Your task to perform on an android device: Go to Maps Image 0: 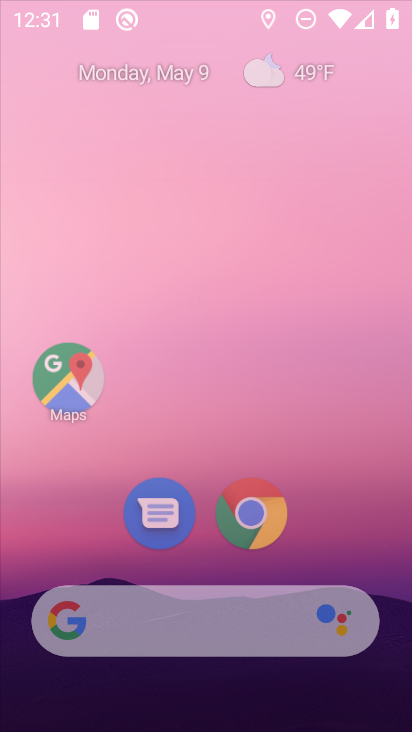
Step 0: click (354, 2)
Your task to perform on an android device: Go to Maps Image 1: 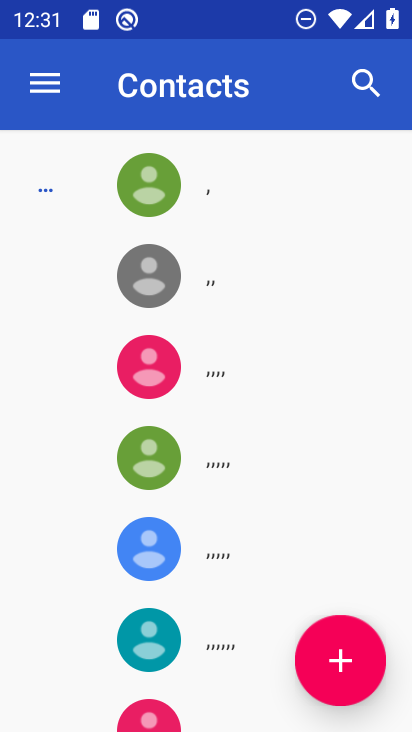
Step 1: press home button
Your task to perform on an android device: Go to Maps Image 2: 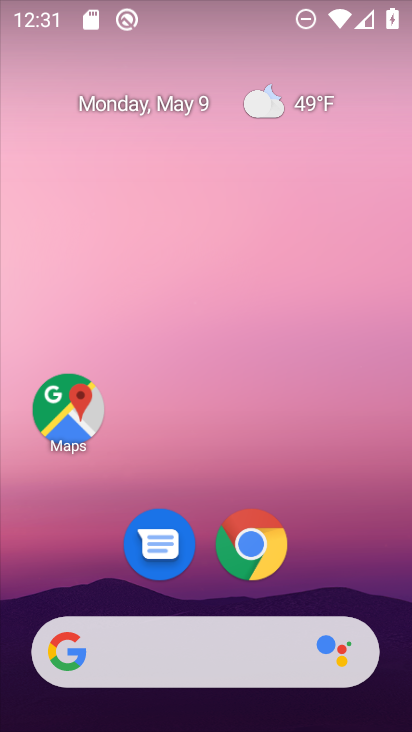
Step 2: drag from (342, 538) to (368, 11)
Your task to perform on an android device: Go to Maps Image 3: 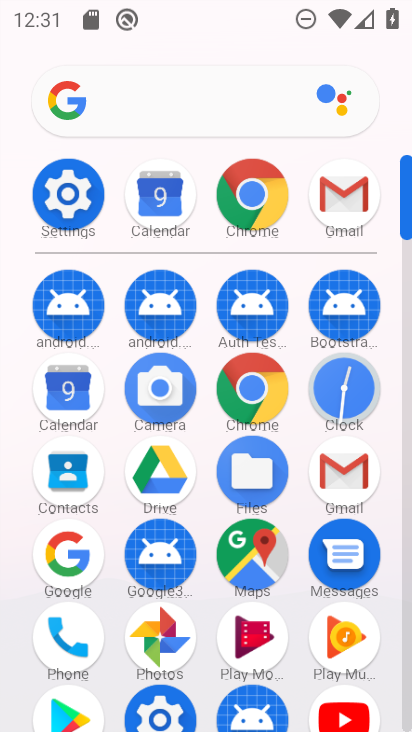
Step 3: click (277, 560)
Your task to perform on an android device: Go to Maps Image 4: 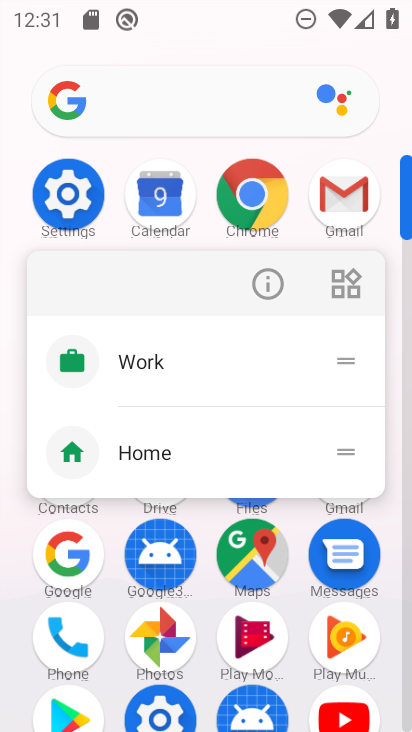
Step 4: click (277, 560)
Your task to perform on an android device: Go to Maps Image 5: 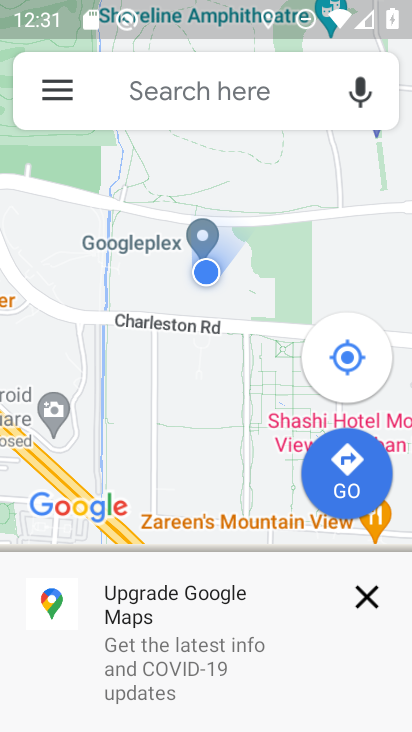
Step 5: click (369, 592)
Your task to perform on an android device: Go to Maps Image 6: 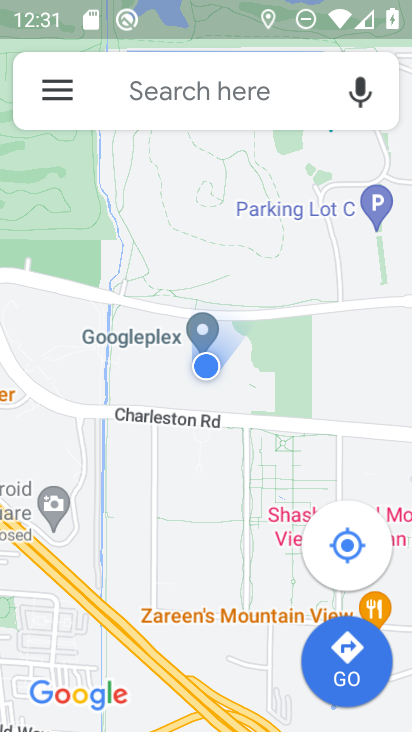
Step 6: task complete